Your task to perform on an android device: Open settings on Google Maps Image 0: 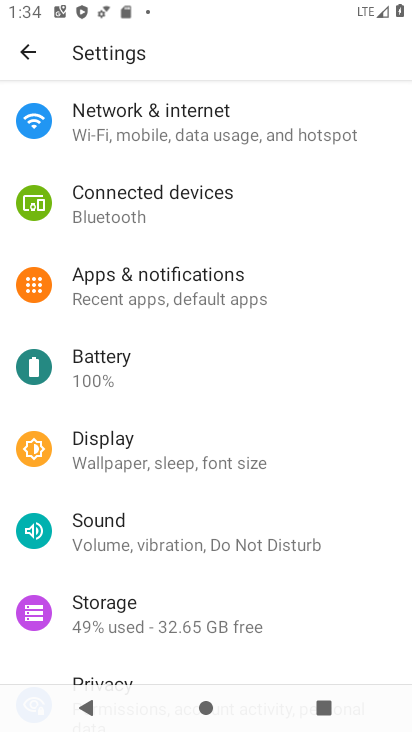
Step 0: press home button
Your task to perform on an android device: Open settings on Google Maps Image 1: 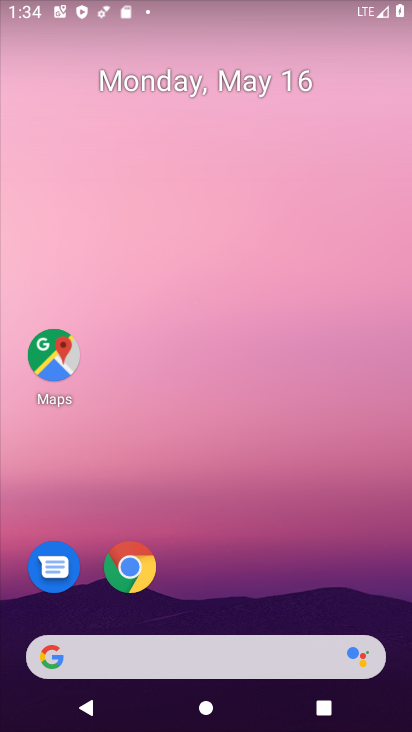
Step 1: click (54, 338)
Your task to perform on an android device: Open settings on Google Maps Image 2: 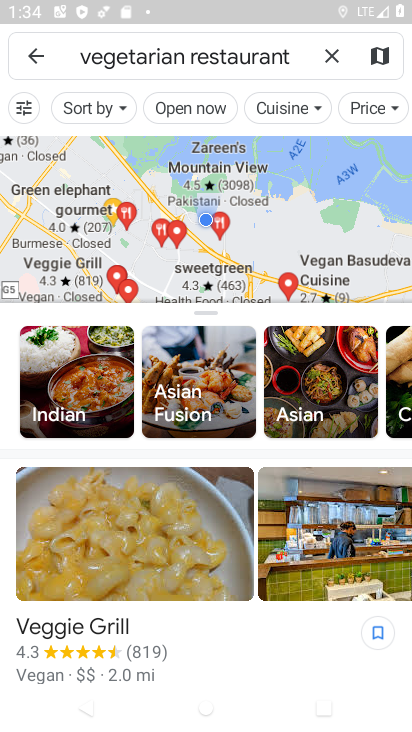
Step 2: click (30, 68)
Your task to perform on an android device: Open settings on Google Maps Image 3: 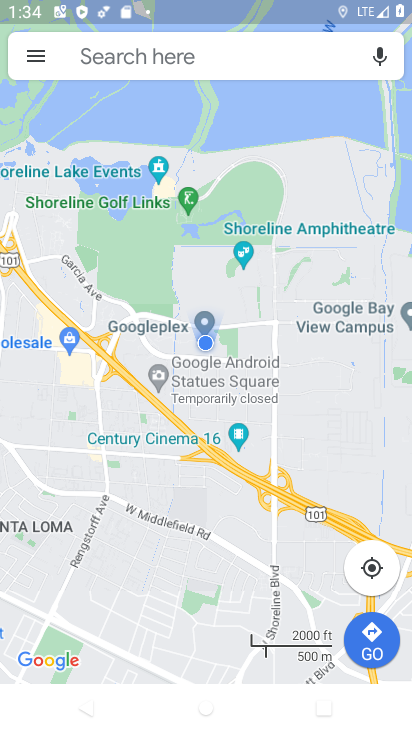
Step 3: click (30, 68)
Your task to perform on an android device: Open settings on Google Maps Image 4: 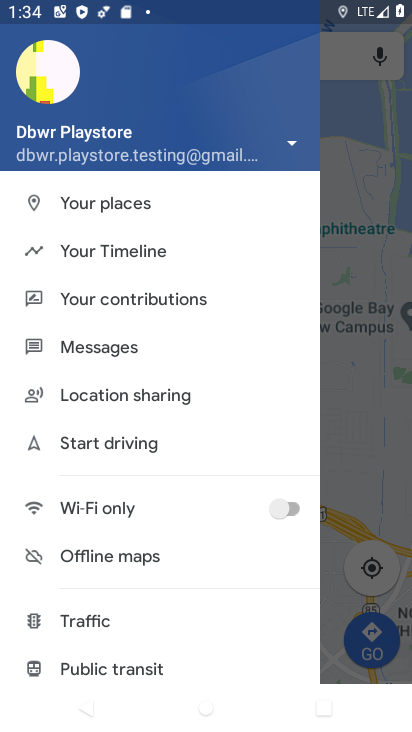
Step 4: drag from (184, 658) to (217, 212)
Your task to perform on an android device: Open settings on Google Maps Image 5: 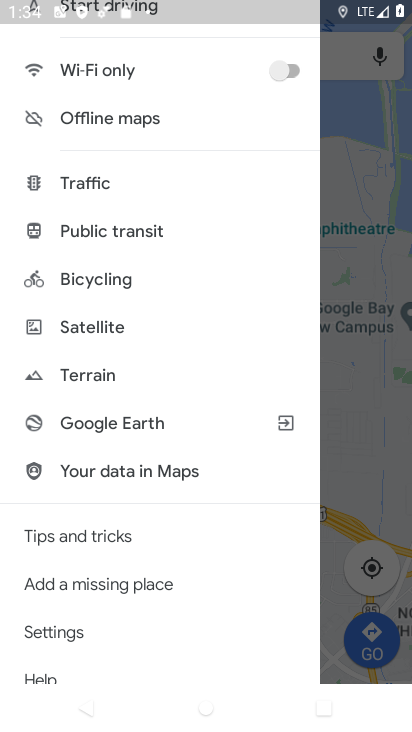
Step 5: click (183, 638)
Your task to perform on an android device: Open settings on Google Maps Image 6: 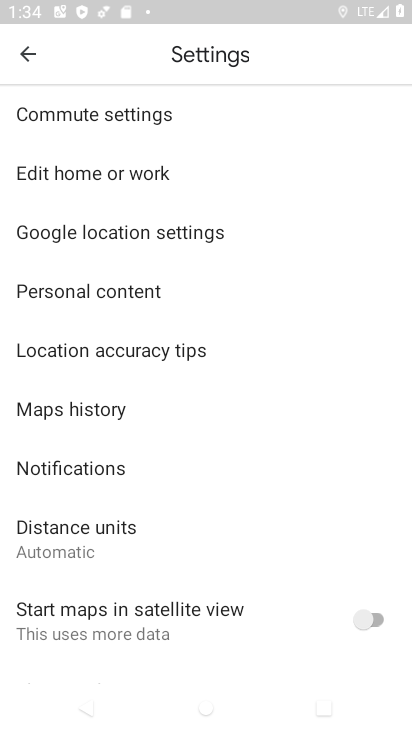
Step 6: task complete